Your task to perform on an android device: turn on improve location accuracy Image 0: 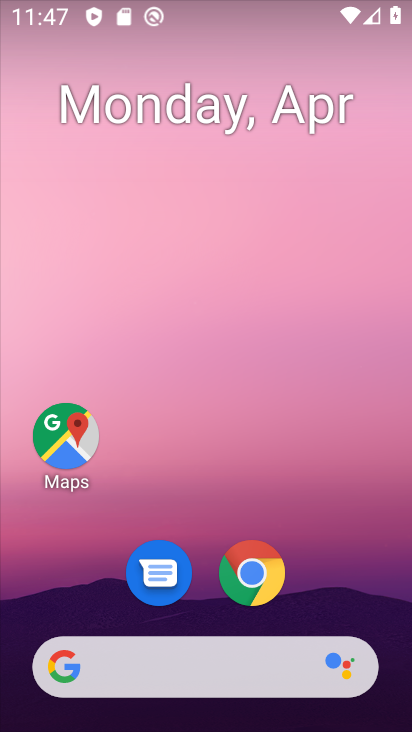
Step 0: click (66, 412)
Your task to perform on an android device: turn on improve location accuracy Image 1: 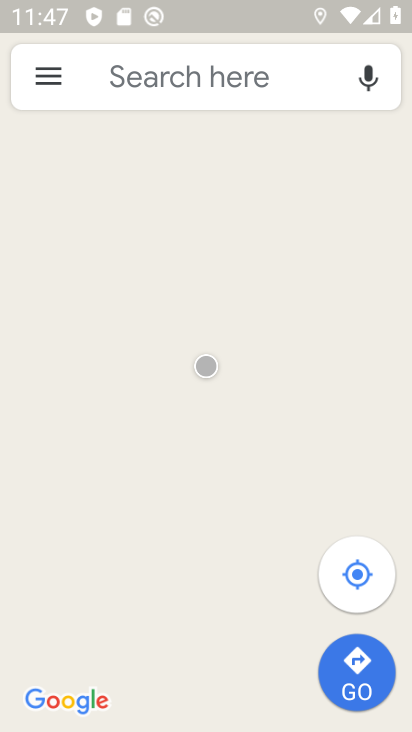
Step 1: press home button
Your task to perform on an android device: turn on improve location accuracy Image 2: 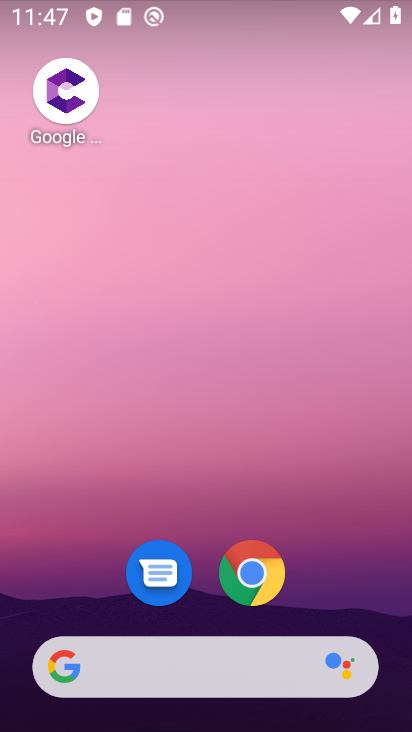
Step 2: drag from (195, 623) to (174, 10)
Your task to perform on an android device: turn on improve location accuracy Image 3: 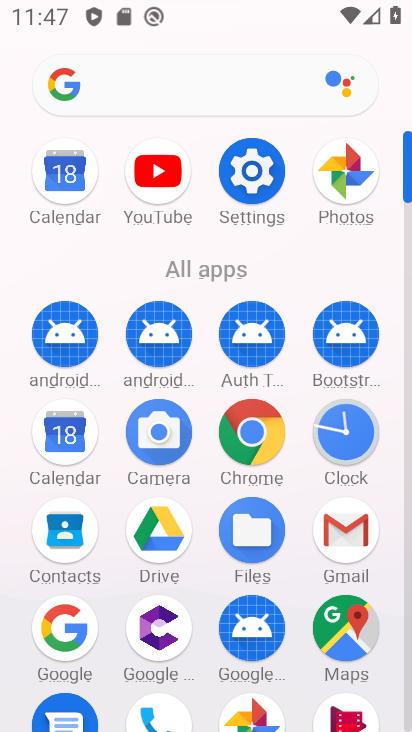
Step 3: click (245, 166)
Your task to perform on an android device: turn on improve location accuracy Image 4: 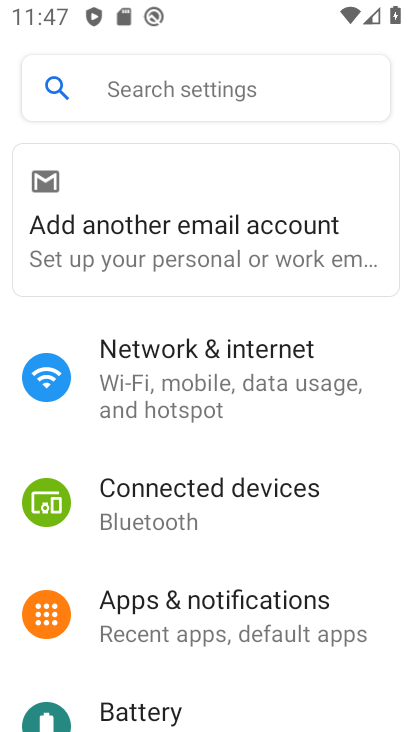
Step 4: drag from (220, 593) to (163, 82)
Your task to perform on an android device: turn on improve location accuracy Image 5: 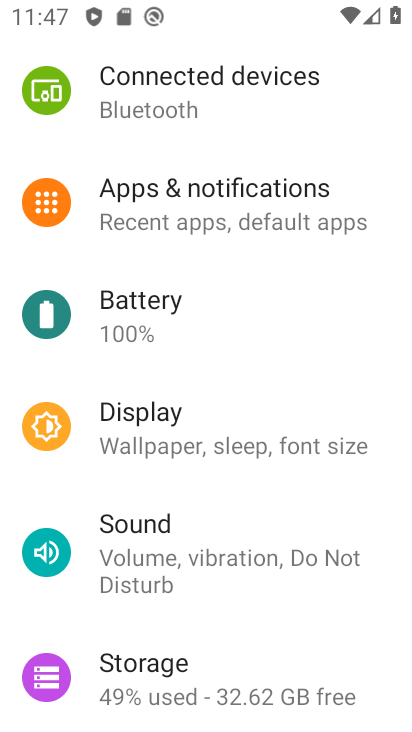
Step 5: drag from (150, 638) to (125, 205)
Your task to perform on an android device: turn on improve location accuracy Image 6: 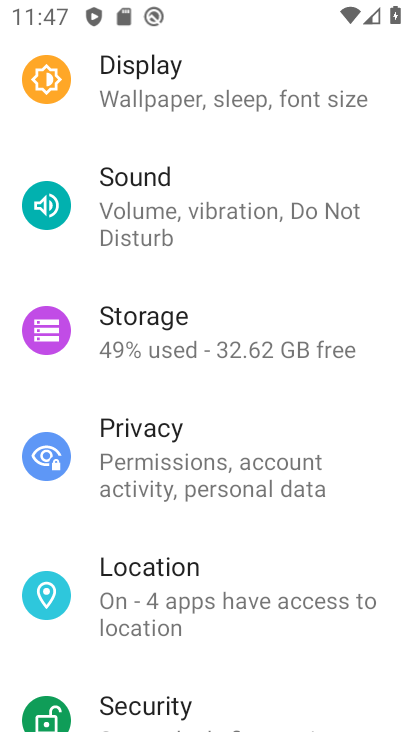
Step 6: click (152, 593)
Your task to perform on an android device: turn on improve location accuracy Image 7: 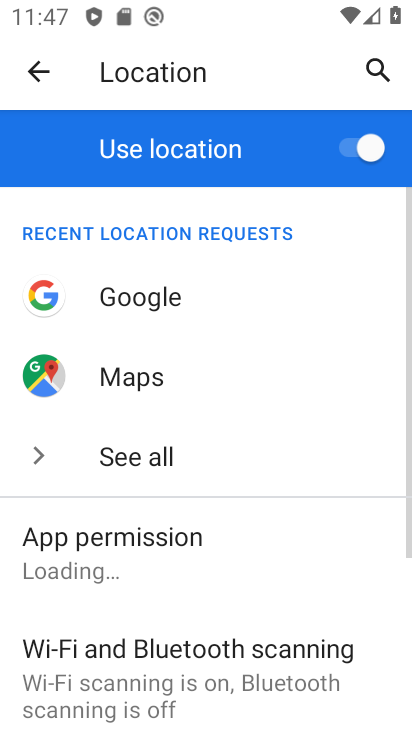
Step 7: drag from (229, 631) to (212, 210)
Your task to perform on an android device: turn on improve location accuracy Image 8: 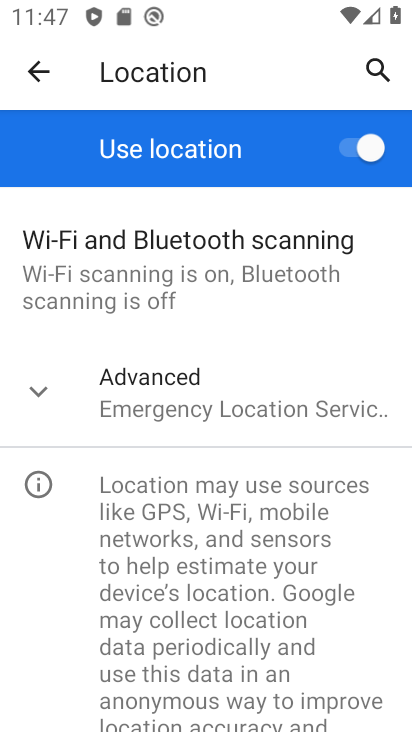
Step 8: click (168, 418)
Your task to perform on an android device: turn on improve location accuracy Image 9: 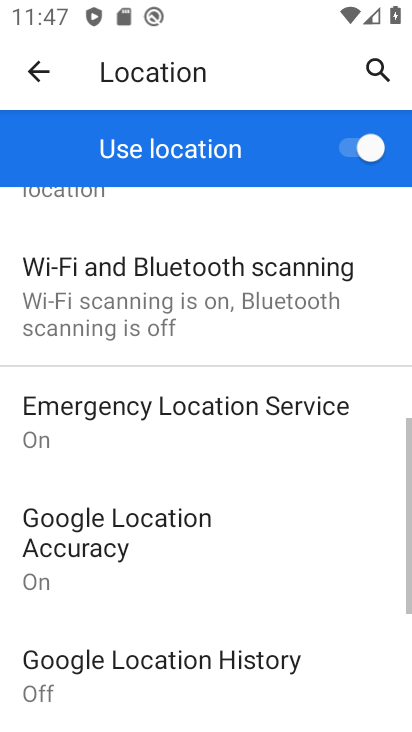
Step 9: click (193, 543)
Your task to perform on an android device: turn on improve location accuracy Image 10: 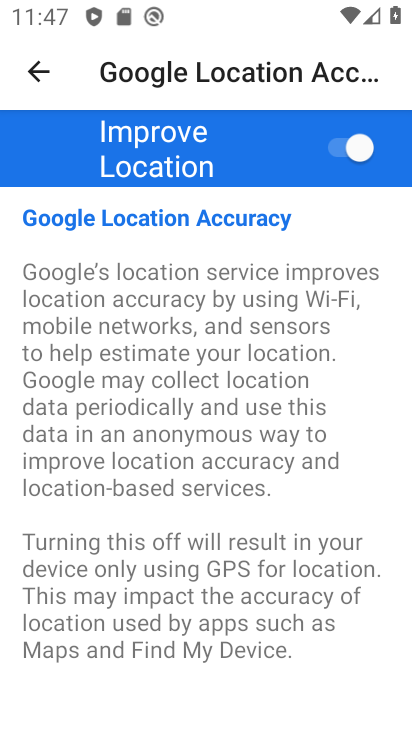
Step 10: task complete